Your task to perform on an android device: Search for the best rated drill on Lowes.com Image 0: 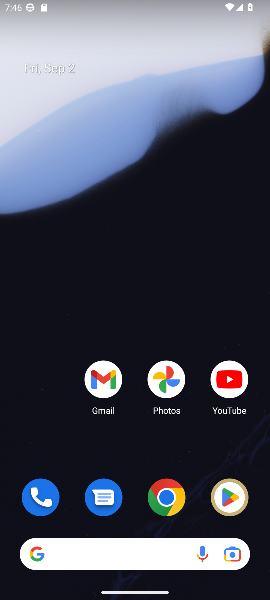
Step 0: click (132, 110)
Your task to perform on an android device: Search for the best rated drill on Lowes.com Image 1: 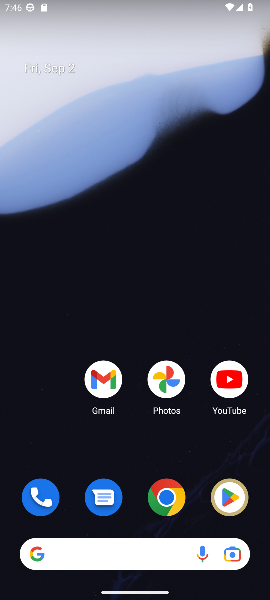
Step 1: drag from (135, 464) to (128, 223)
Your task to perform on an android device: Search for the best rated drill on Lowes.com Image 2: 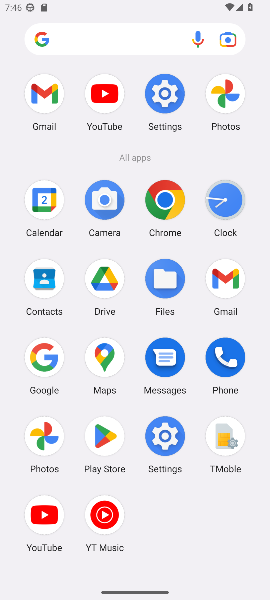
Step 2: click (44, 359)
Your task to perform on an android device: Search for the best rated drill on Lowes.com Image 3: 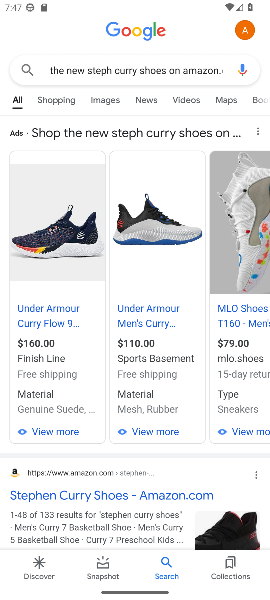
Step 3: click (177, 70)
Your task to perform on an android device: Search for the best rated drill on Lowes.com Image 4: 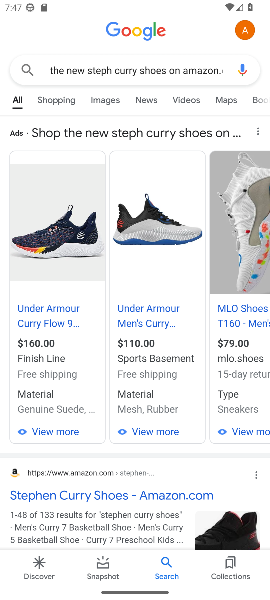
Step 4: click (177, 70)
Your task to perform on an android device: Search for the best rated drill on Lowes.com Image 5: 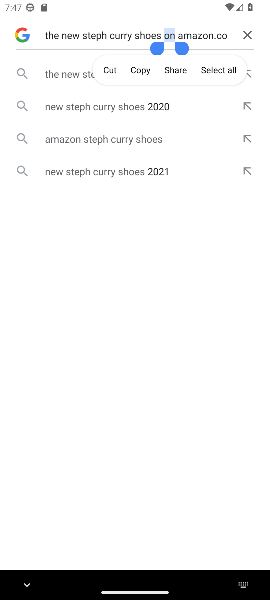
Step 5: click (244, 35)
Your task to perform on an android device: Search for the best rated drill on Lowes.com Image 6: 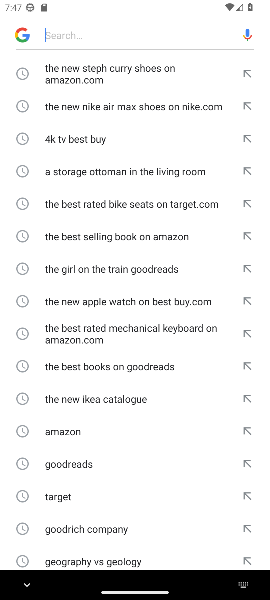
Step 6: type "the best rated drill on Lowes.com"
Your task to perform on an android device: Search for the best rated drill on Lowes.com Image 7: 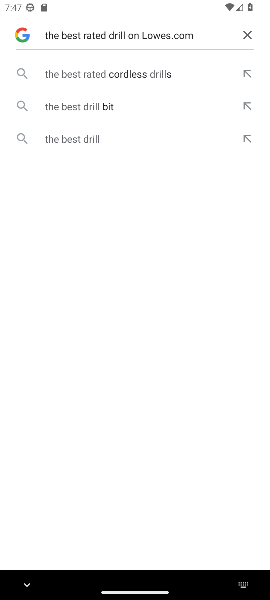
Step 7: click (142, 73)
Your task to perform on an android device: Search for the best rated drill on Lowes.com Image 8: 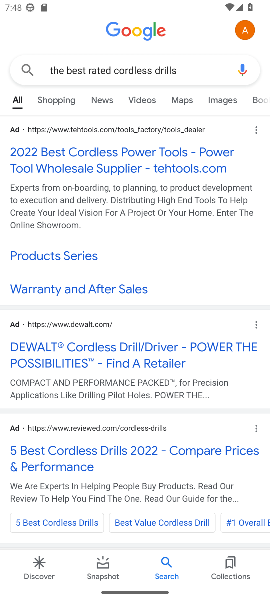
Step 8: task complete